Your task to perform on an android device: turn on improve location accuracy Image 0: 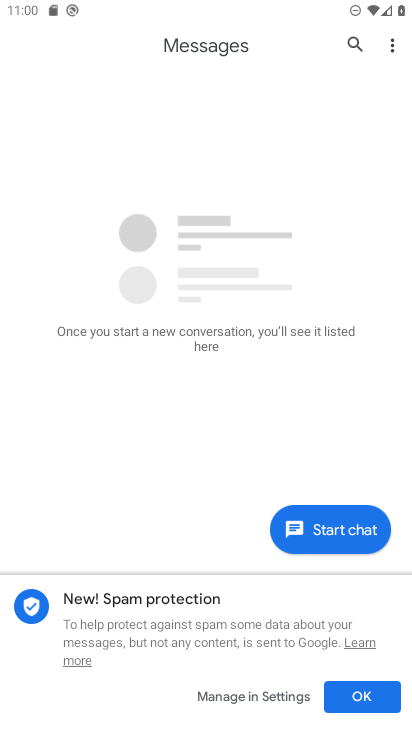
Step 0: press home button
Your task to perform on an android device: turn on improve location accuracy Image 1: 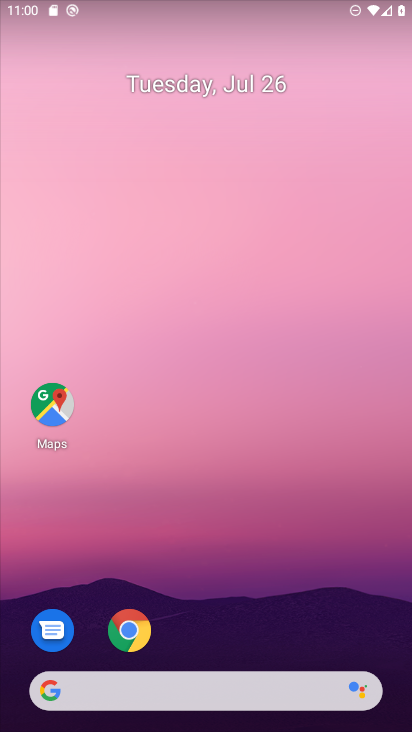
Step 1: drag from (375, 641) to (330, 171)
Your task to perform on an android device: turn on improve location accuracy Image 2: 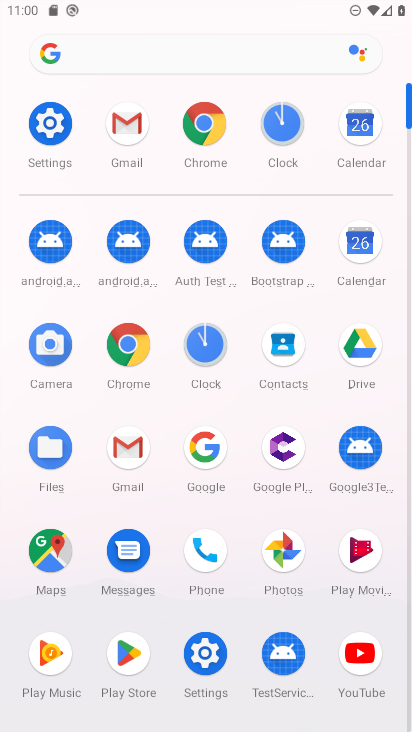
Step 2: click (205, 654)
Your task to perform on an android device: turn on improve location accuracy Image 3: 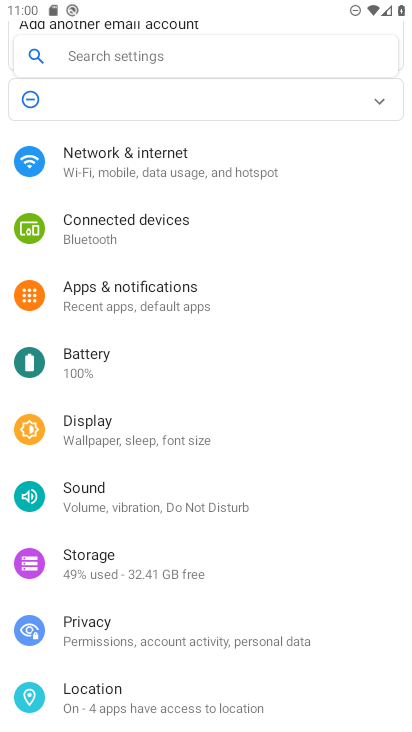
Step 3: click (95, 692)
Your task to perform on an android device: turn on improve location accuracy Image 4: 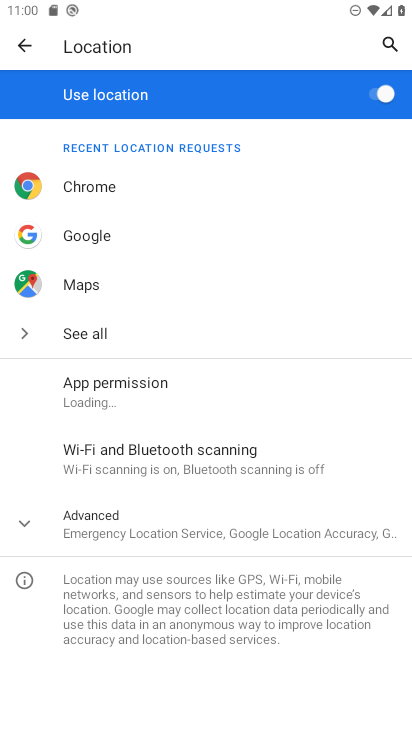
Step 4: click (18, 527)
Your task to perform on an android device: turn on improve location accuracy Image 5: 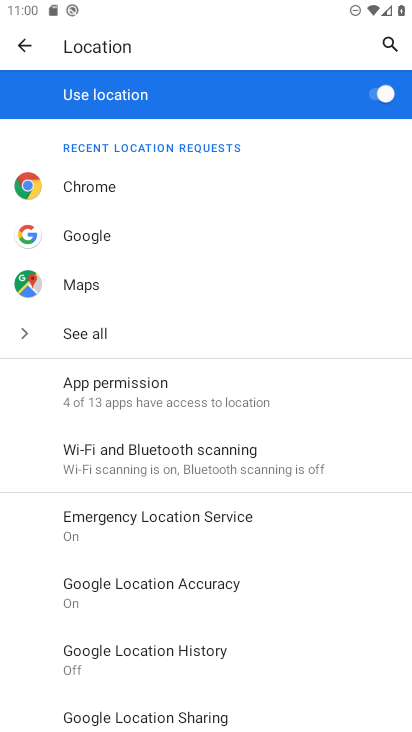
Step 5: click (101, 581)
Your task to perform on an android device: turn on improve location accuracy Image 6: 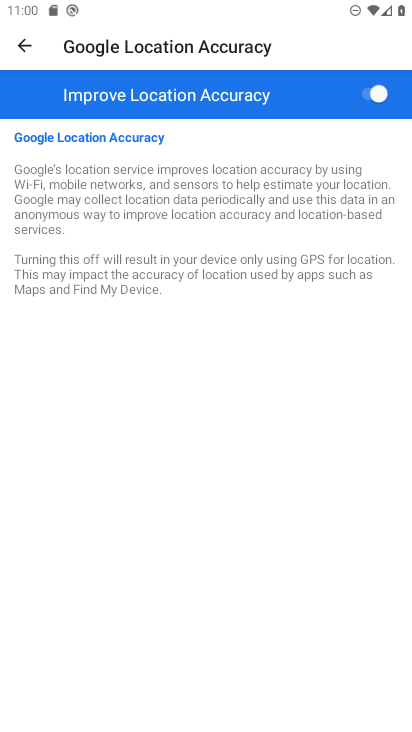
Step 6: task complete